Your task to perform on an android device: Open internet settings Image 0: 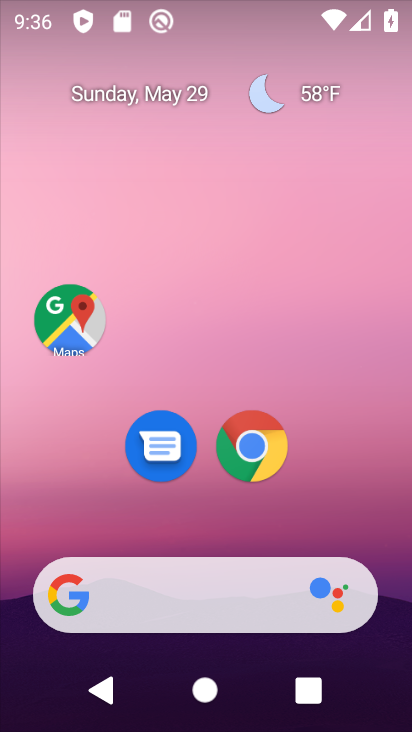
Step 0: drag from (280, 547) to (321, 164)
Your task to perform on an android device: Open internet settings Image 1: 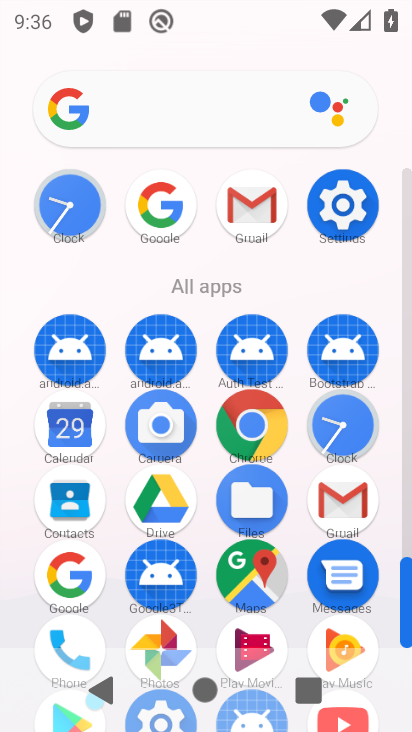
Step 1: click (352, 224)
Your task to perform on an android device: Open internet settings Image 2: 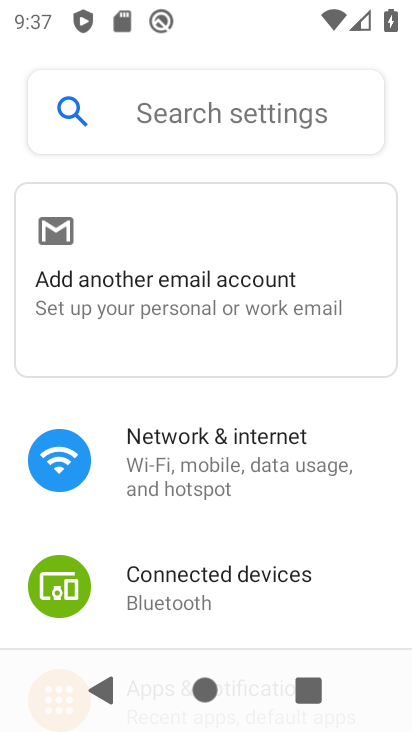
Step 2: click (260, 462)
Your task to perform on an android device: Open internet settings Image 3: 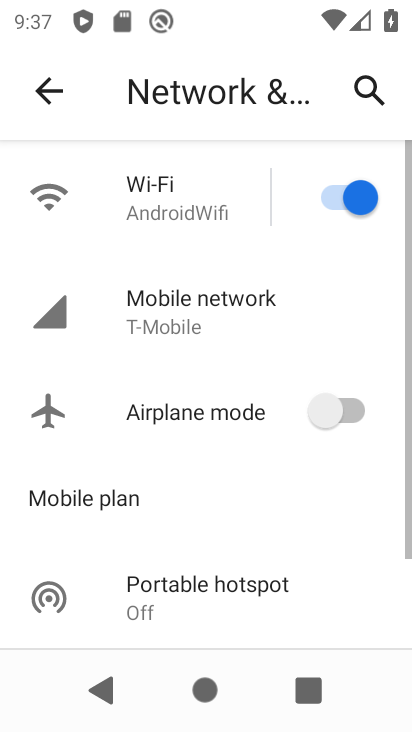
Step 3: drag from (222, 617) to (235, 226)
Your task to perform on an android device: Open internet settings Image 4: 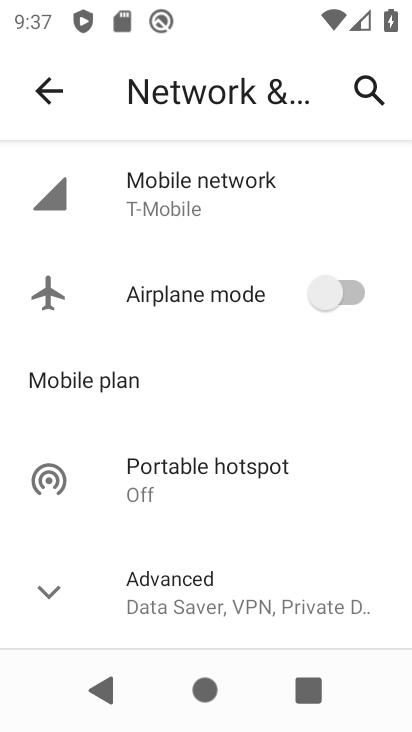
Step 4: click (216, 582)
Your task to perform on an android device: Open internet settings Image 5: 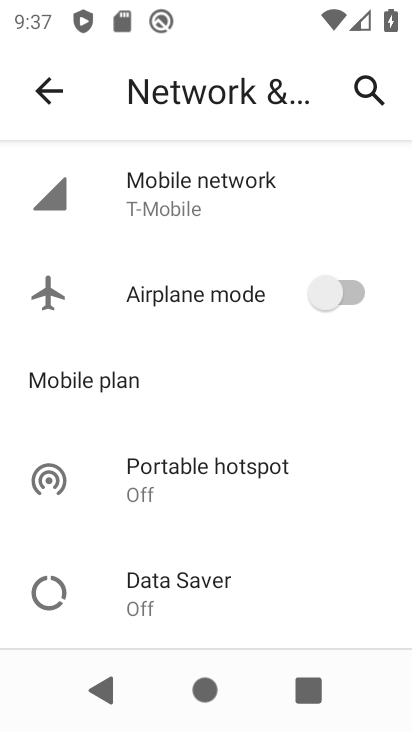
Step 5: task complete